Your task to perform on an android device: Search for usb-a on bestbuy.com, select the first entry, add it to the cart, then select checkout. Image 0: 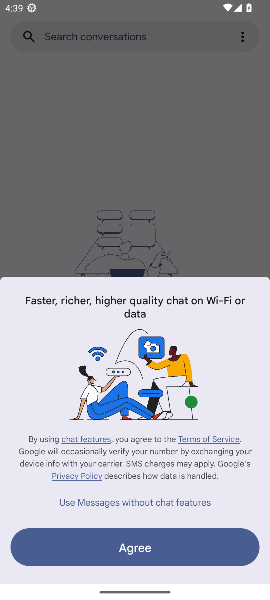
Step 0: click (256, 560)
Your task to perform on an android device: Search for usb-a on bestbuy.com, select the first entry, add it to the cart, then select checkout. Image 1: 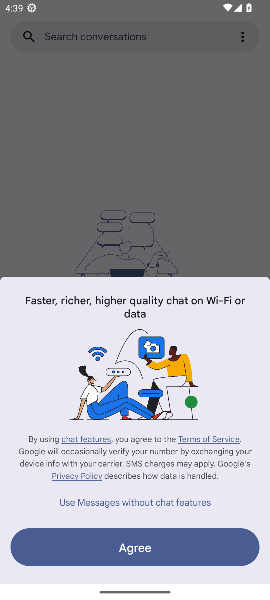
Step 1: click (243, 548)
Your task to perform on an android device: Search for usb-a on bestbuy.com, select the first entry, add it to the cart, then select checkout. Image 2: 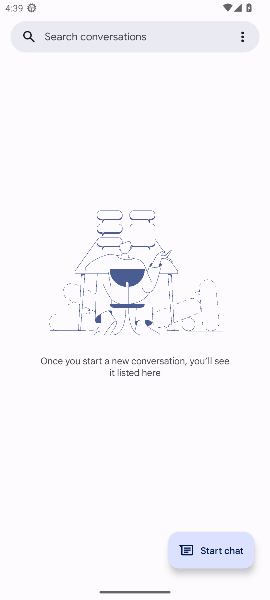
Step 2: press home button
Your task to perform on an android device: Search for usb-a on bestbuy.com, select the first entry, add it to the cart, then select checkout. Image 3: 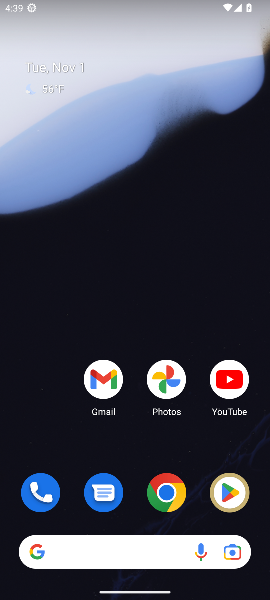
Step 3: drag from (115, 592) to (174, 249)
Your task to perform on an android device: Search for usb-a on bestbuy.com, select the first entry, add it to the cart, then select checkout. Image 4: 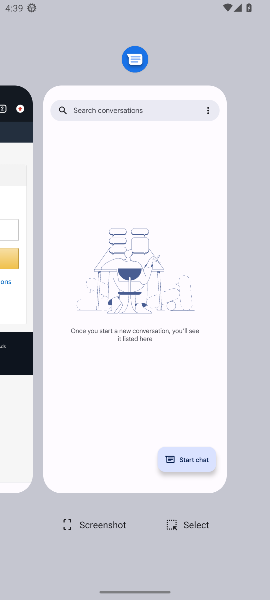
Step 4: drag from (53, 306) to (238, 312)
Your task to perform on an android device: Search for usb-a on bestbuy.com, select the first entry, add it to the cart, then select checkout. Image 5: 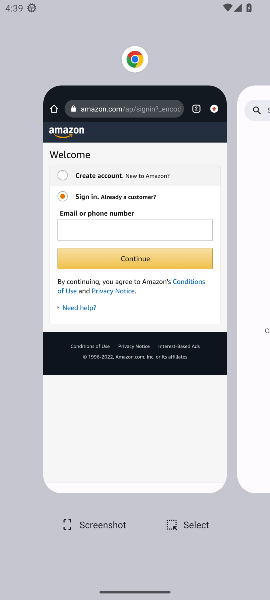
Step 5: drag from (87, 314) to (254, 317)
Your task to perform on an android device: Search for usb-a on bestbuy.com, select the first entry, add it to the cart, then select checkout. Image 6: 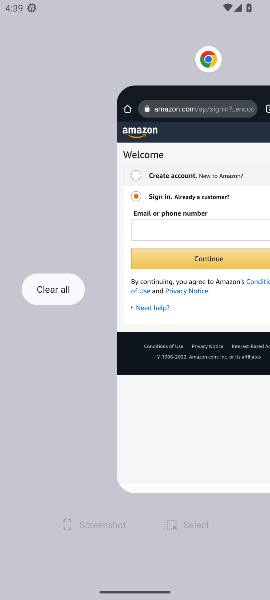
Step 6: click (52, 292)
Your task to perform on an android device: Search for usb-a on bestbuy.com, select the first entry, add it to the cart, then select checkout. Image 7: 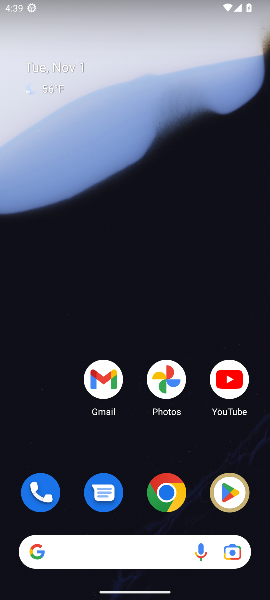
Step 7: click (162, 483)
Your task to perform on an android device: Search for usb-a on bestbuy.com, select the first entry, add it to the cart, then select checkout. Image 8: 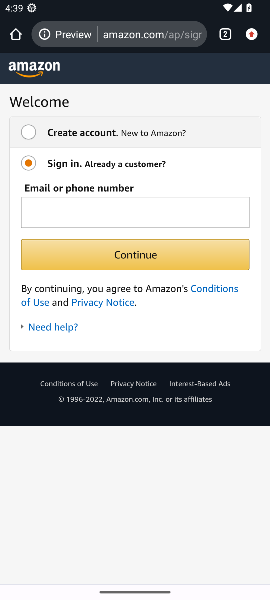
Step 8: click (113, 37)
Your task to perform on an android device: Search for usb-a on bestbuy.com, select the first entry, add it to the cart, then select checkout. Image 9: 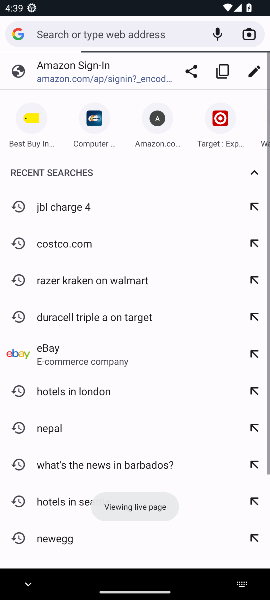
Step 9: click (28, 138)
Your task to perform on an android device: Search for usb-a on bestbuy.com, select the first entry, add it to the cart, then select checkout. Image 10: 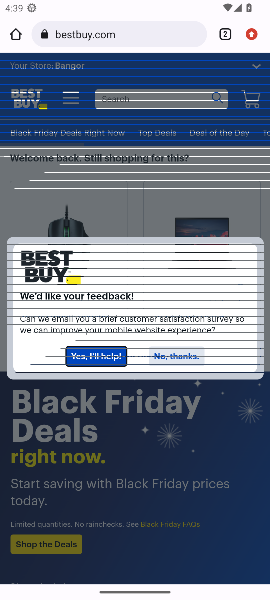
Step 10: click (180, 364)
Your task to perform on an android device: Search for usb-a on bestbuy.com, select the first entry, add it to the cart, then select checkout. Image 11: 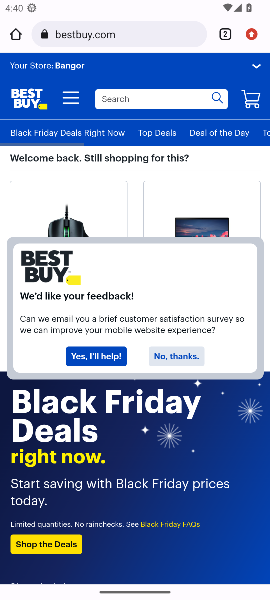
Step 11: click (177, 356)
Your task to perform on an android device: Search for usb-a on bestbuy.com, select the first entry, add it to the cart, then select checkout. Image 12: 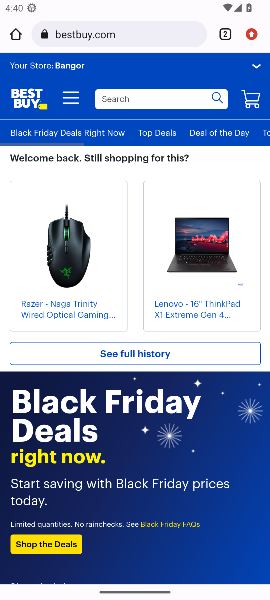
Step 12: click (111, 109)
Your task to perform on an android device: Search for usb-a on bestbuy.com, select the first entry, add it to the cart, then select checkout. Image 13: 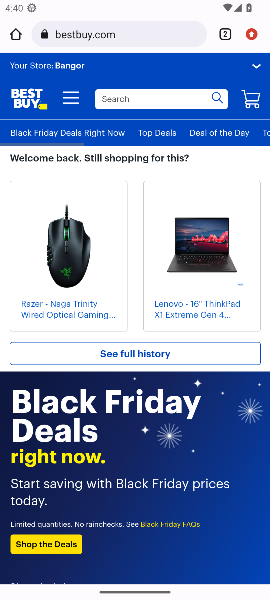
Step 13: click (113, 105)
Your task to perform on an android device: Search for usb-a on bestbuy.com, select the first entry, add it to the cart, then select checkout. Image 14: 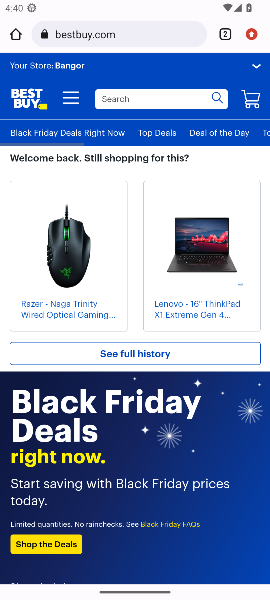
Step 14: type "usb-a"
Your task to perform on an android device: Search for usb-a on bestbuy.com, select the first entry, add it to the cart, then select checkout. Image 15: 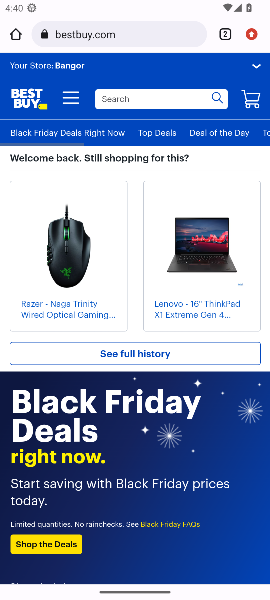
Step 15: type ""
Your task to perform on an android device: Search for usb-a on bestbuy.com, select the first entry, add it to the cart, then select checkout. Image 16: 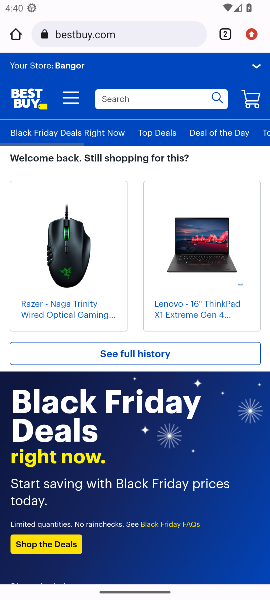
Step 16: click (154, 100)
Your task to perform on an android device: Search for usb-a on bestbuy.com, select the first entry, add it to the cart, then select checkout. Image 17: 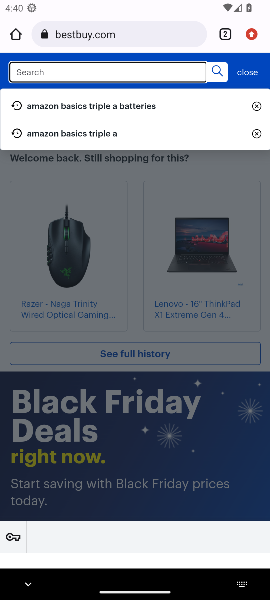
Step 17: type "usb-a"
Your task to perform on an android device: Search for usb-a on bestbuy.com, select the first entry, add it to the cart, then select checkout. Image 18: 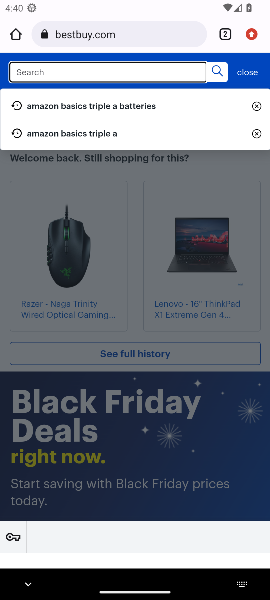
Step 18: type ""
Your task to perform on an android device: Search for usb-a on bestbuy.com, select the first entry, add it to the cart, then select checkout. Image 19: 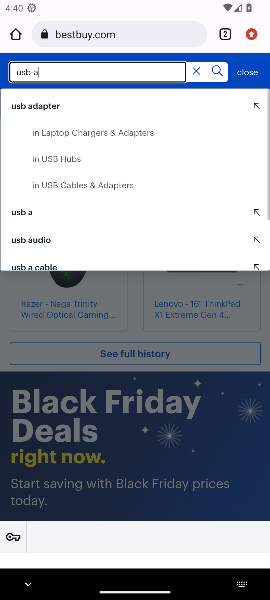
Step 19: click (13, 215)
Your task to perform on an android device: Search for usb-a on bestbuy.com, select the first entry, add it to the cart, then select checkout. Image 20: 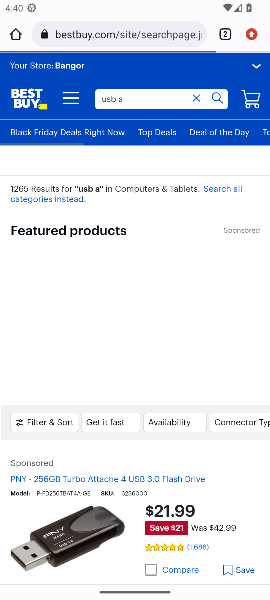
Step 20: drag from (163, 454) to (152, 268)
Your task to perform on an android device: Search for usb-a on bestbuy.com, select the first entry, add it to the cart, then select checkout. Image 21: 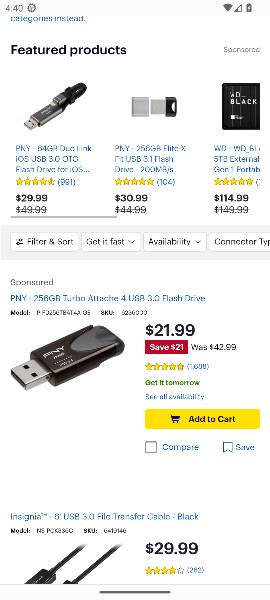
Step 21: drag from (126, 425) to (115, 302)
Your task to perform on an android device: Search for usb-a on bestbuy.com, select the first entry, add it to the cart, then select checkout. Image 22: 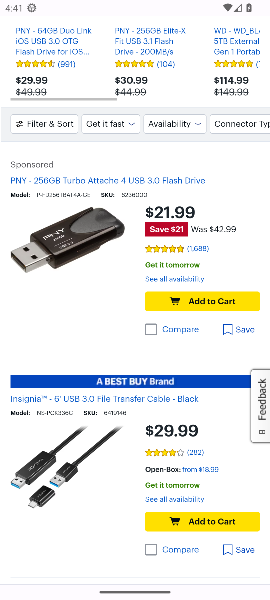
Step 22: click (125, 238)
Your task to perform on an android device: Search for usb-a on bestbuy.com, select the first entry, add it to the cart, then select checkout. Image 23: 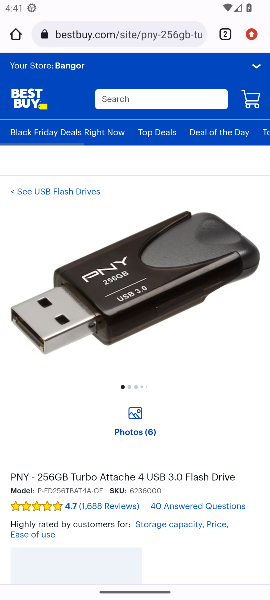
Step 23: drag from (212, 420) to (205, 259)
Your task to perform on an android device: Search for usb-a on bestbuy.com, select the first entry, add it to the cart, then select checkout. Image 24: 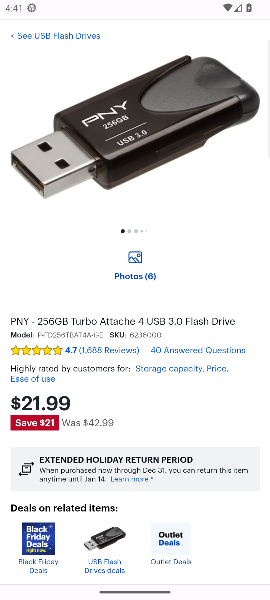
Step 24: drag from (201, 449) to (189, 219)
Your task to perform on an android device: Search for usb-a on bestbuy.com, select the first entry, add it to the cart, then select checkout. Image 25: 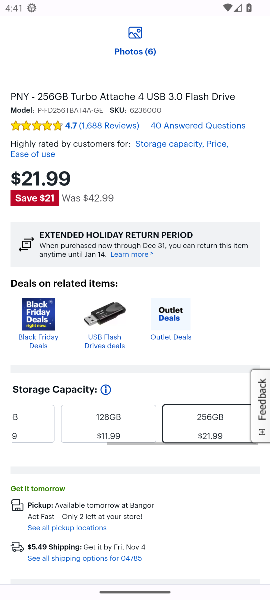
Step 25: drag from (179, 459) to (174, 237)
Your task to perform on an android device: Search for usb-a on bestbuy.com, select the first entry, add it to the cart, then select checkout. Image 26: 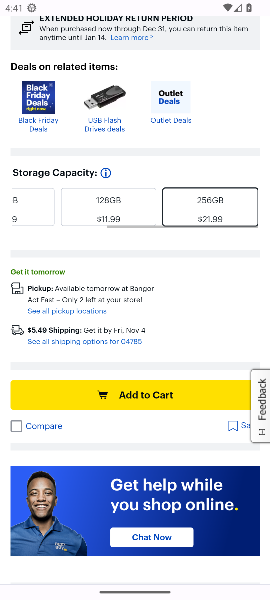
Step 26: click (139, 399)
Your task to perform on an android device: Search for usb-a on bestbuy.com, select the first entry, add it to the cart, then select checkout. Image 27: 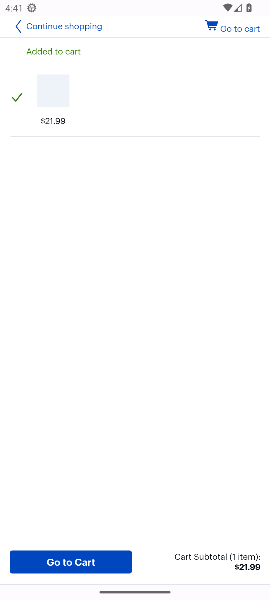
Step 27: click (91, 559)
Your task to perform on an android device: Search for usb-a on bestbuy.com, select the first entry, add it to the cart, then select checkout. Image 28: 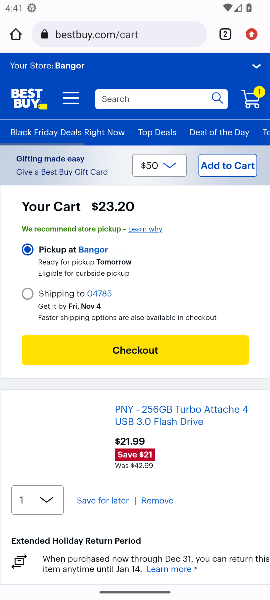
Step 28: click (260, 94)
Your task to perform on an android device: Search for usb-a on bestbuy.com, select the first entry, add it to the cart, then select checkout. Image 29: 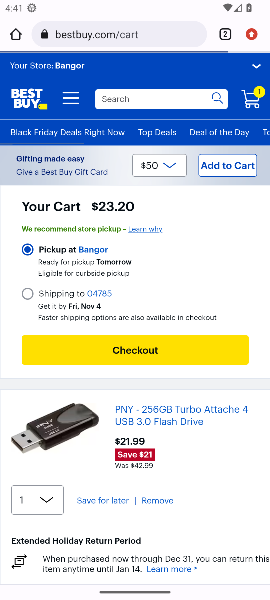
Step 29: click (125, 355)
Your task to perform on an android device: Search for usb-a on bestbuy.com, select the first entry, add it to the cart, then select checkout. Image 30: 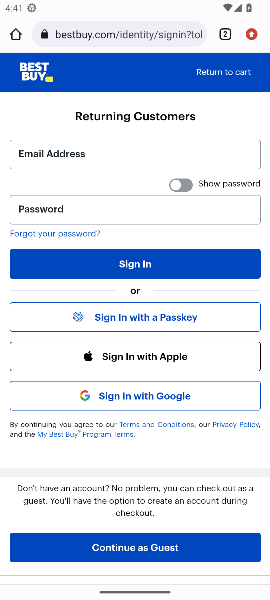
Step 30: click (111, 541)
Your task to perform on an android device: Search for usb-a on bestbuy.com, select the first entry, add it to the cart, then select checkout. Image 31: 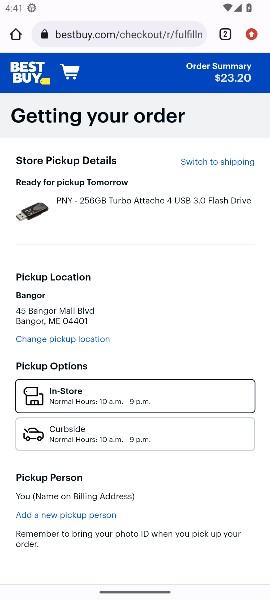
Step 31: drag from (109, 542) to (156, 174)
Your task to perform on an android device: Search for usb-a on bestbuy.com, select the first entry, add it to the cart, then select checkout. Image 32: 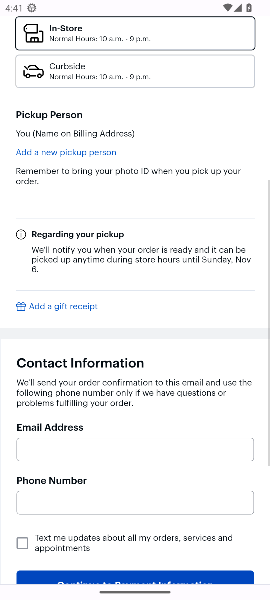
Step 32: drag from (111, 463) to (123, 157)
Your task to perform on an android device: Search for usb-a on bestbuy.com, select the first entry, add it to the cart, then select checkout. Image 33: 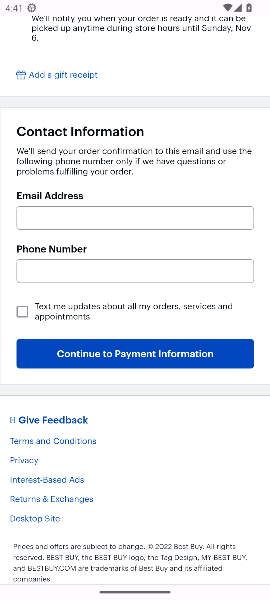
Step 33: click (129, 352)
Your task to perform on an android device: Search for usb-a on bestbuy.com, select the first entry, add it to the cart, then select checkout. Image 34: 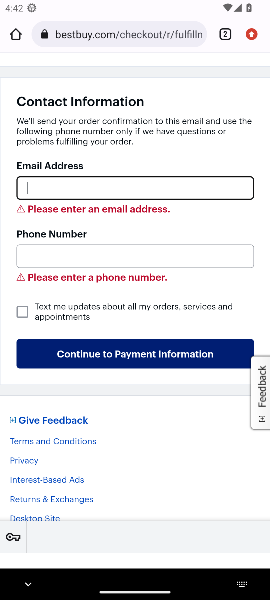
Step 34: task complete